Your task to perform on an android device: turn on priority inbox in the gmail app Image 0: 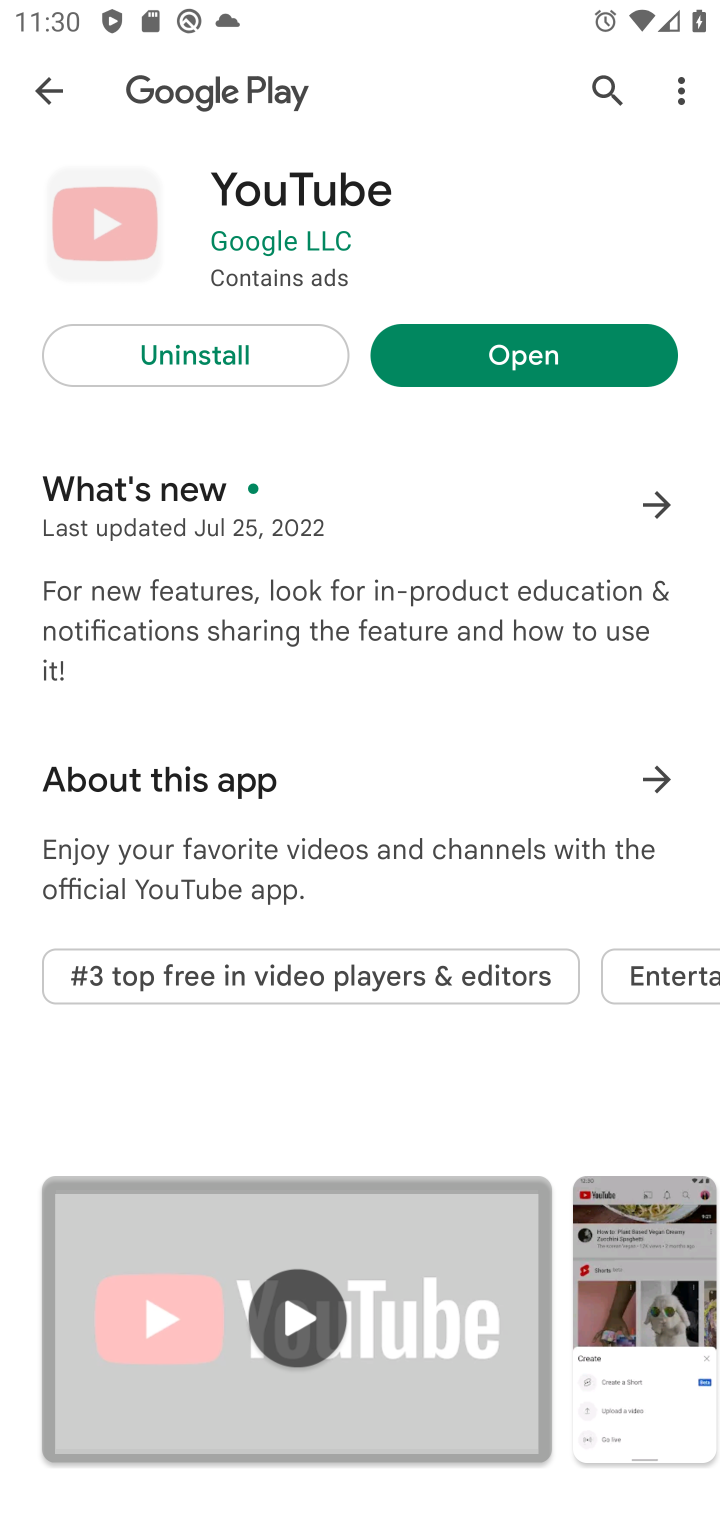
Step 0: press home button
Your task to perform on an android device: turn on priority inbox in the gmail app Image 1: 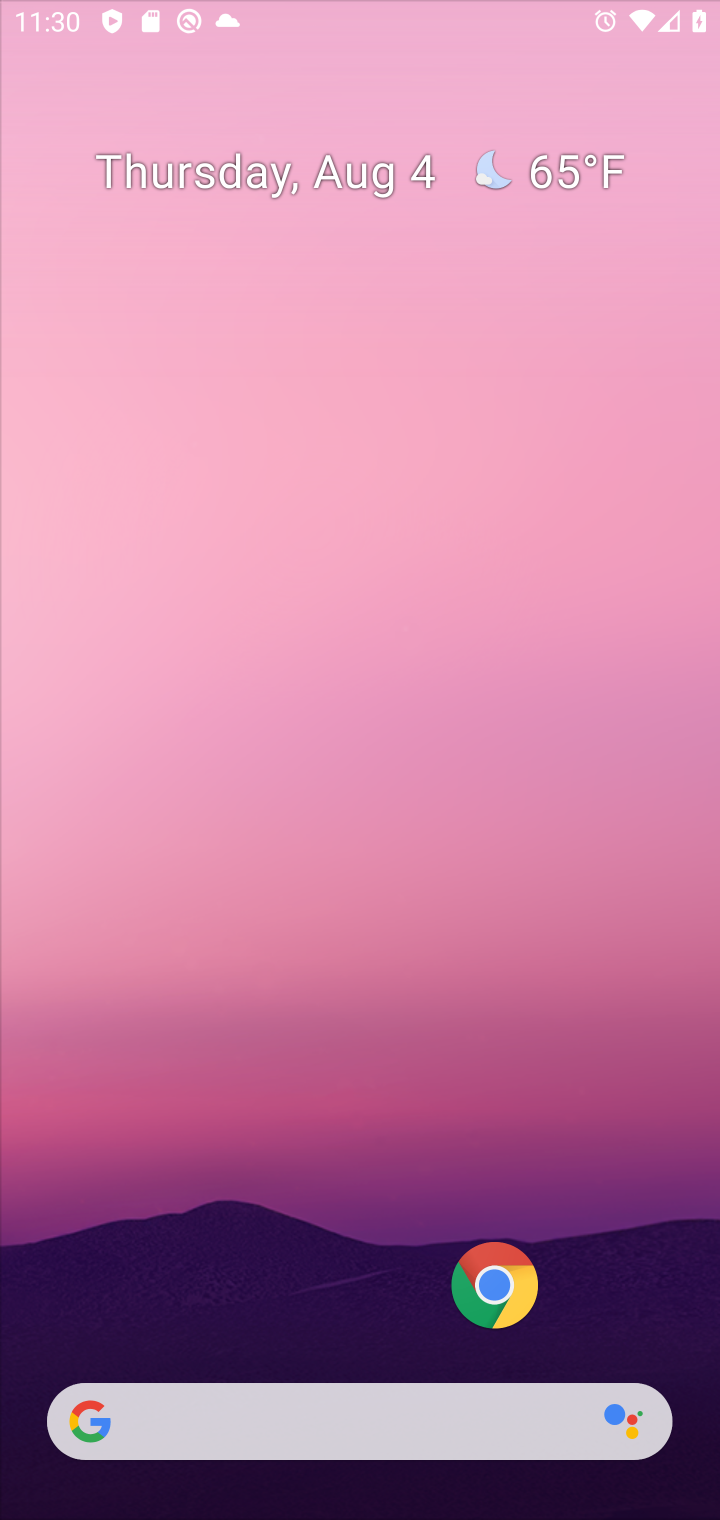
Step 1: drag from (323, 943) to (309, 151)
Your task to perform on an android device: turn on priority inbox in the gmail app Image 2: 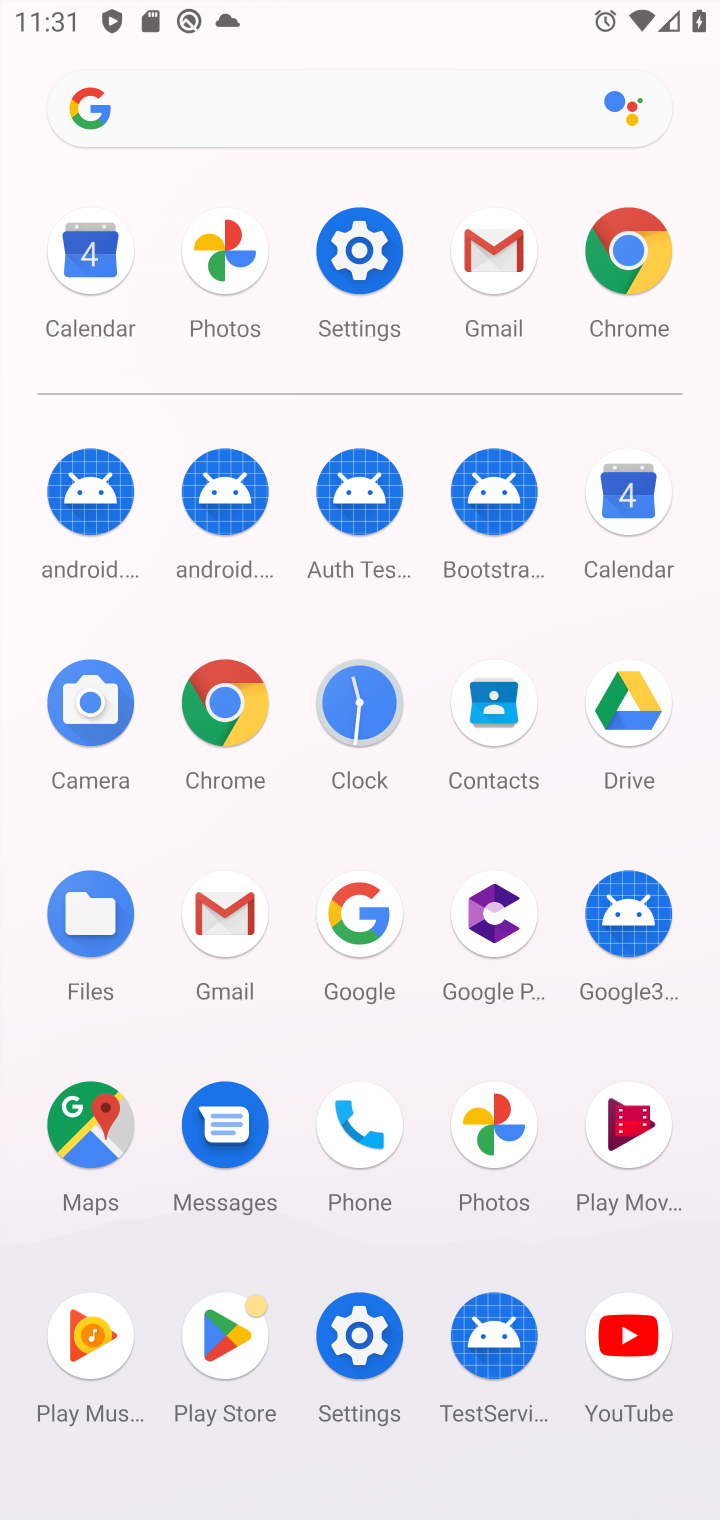
Step 2: click (229, 924)
Your task to perform on an android device: turn on priority inbox in the gmail app Image 3: 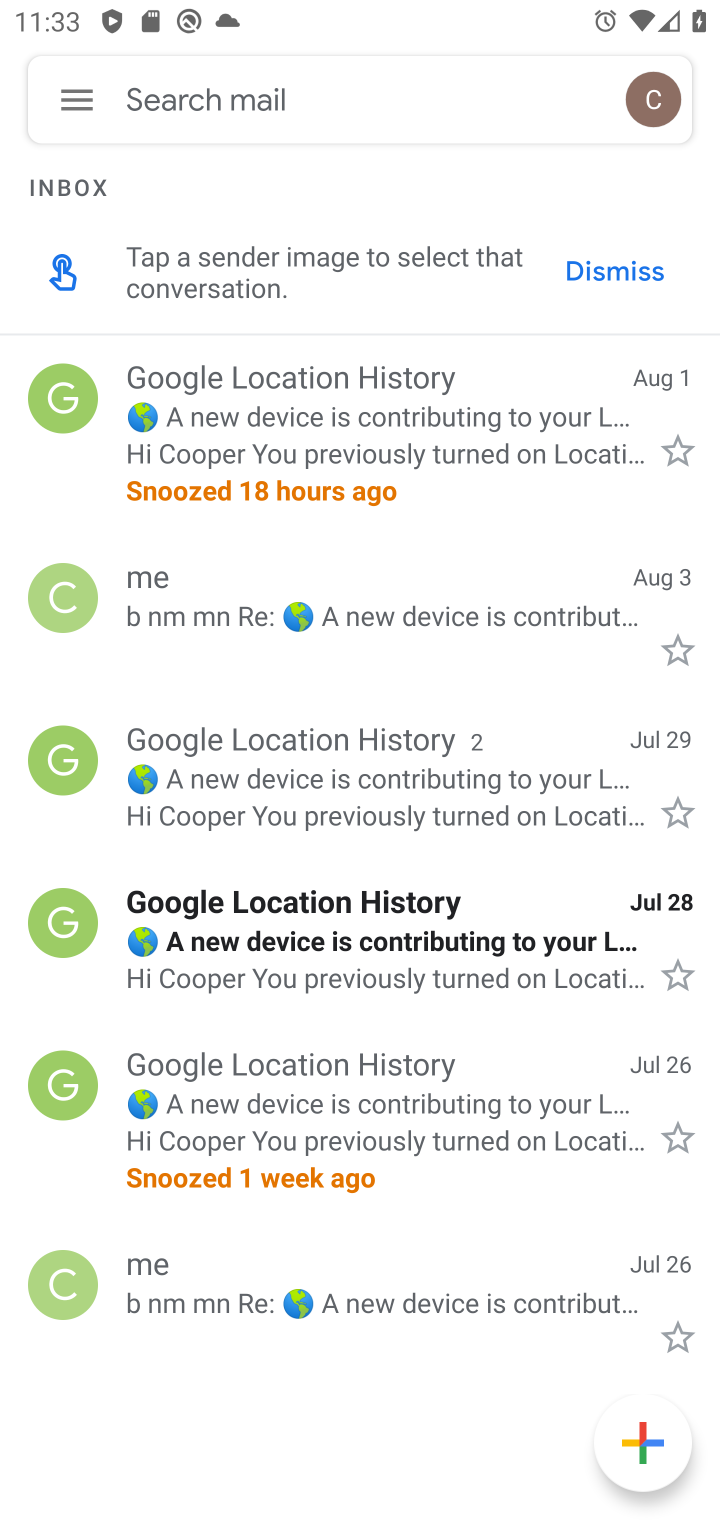
Step 3: click (67, 123)
Your task to perform on an android device: turn on priority inbox in the gmail app Image 4: 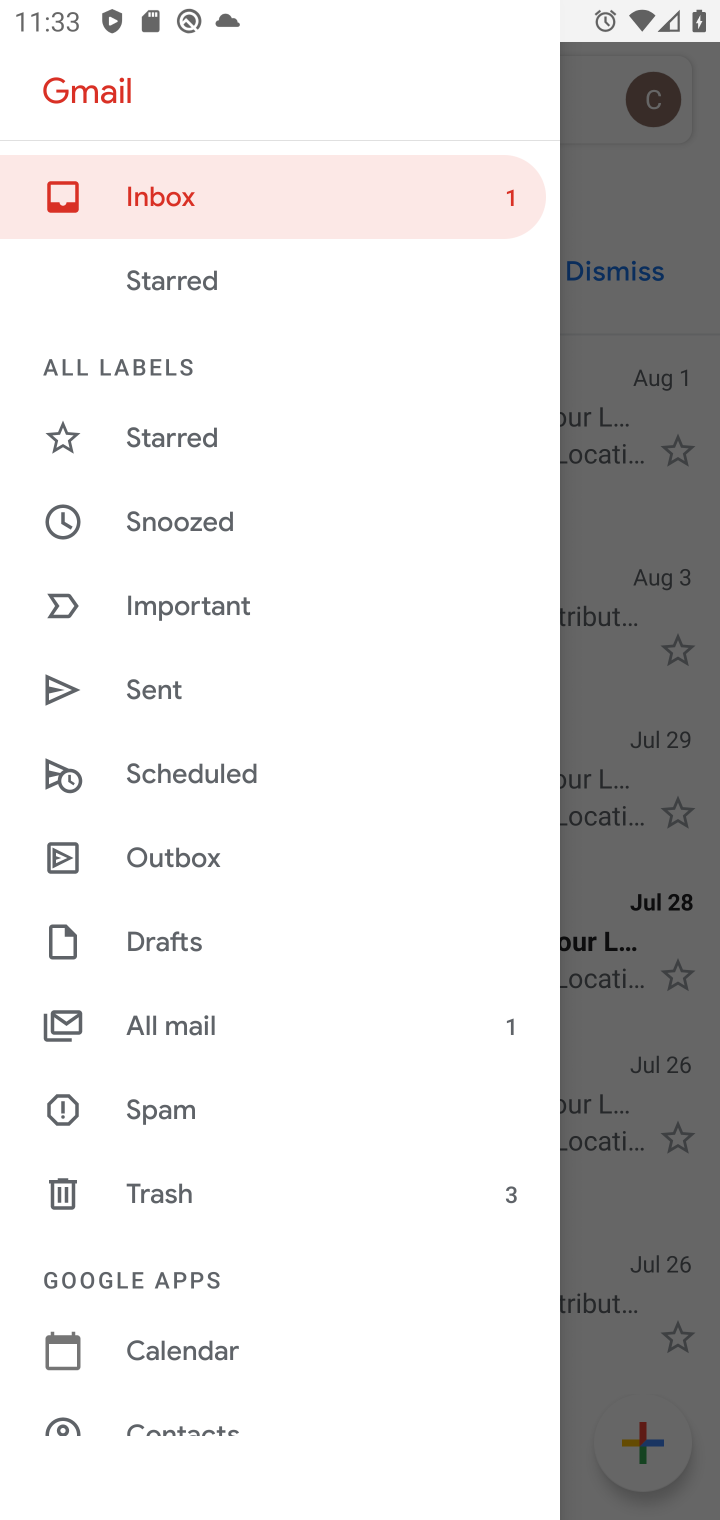
Step 4: drag from (195, 1253) to (181, 380)
Your task to perform on an android device: turn on priority inbox in the gmail app Image 5: 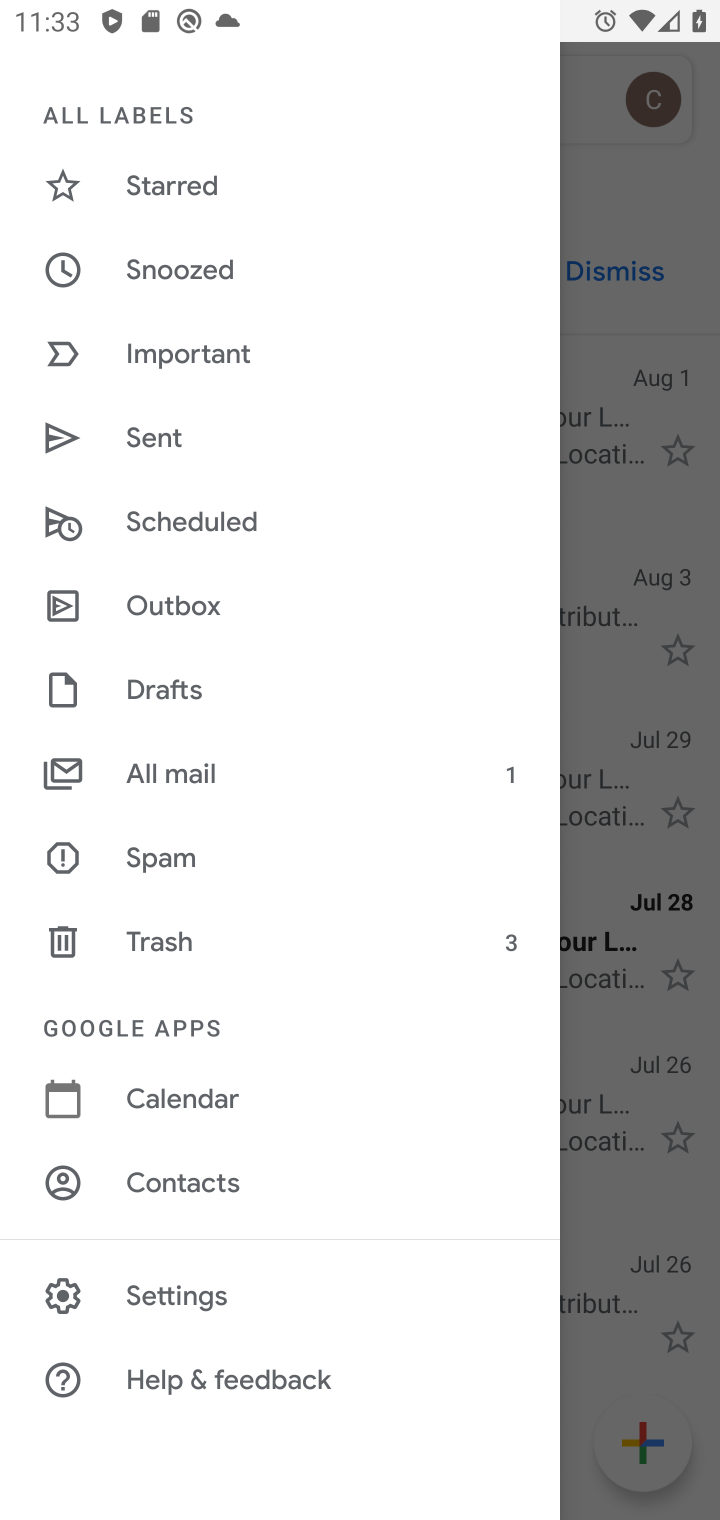
Step 5: click (136, 1294)
Your task to perform on an android device: turn on priority inbox in the gmail app Image 6: 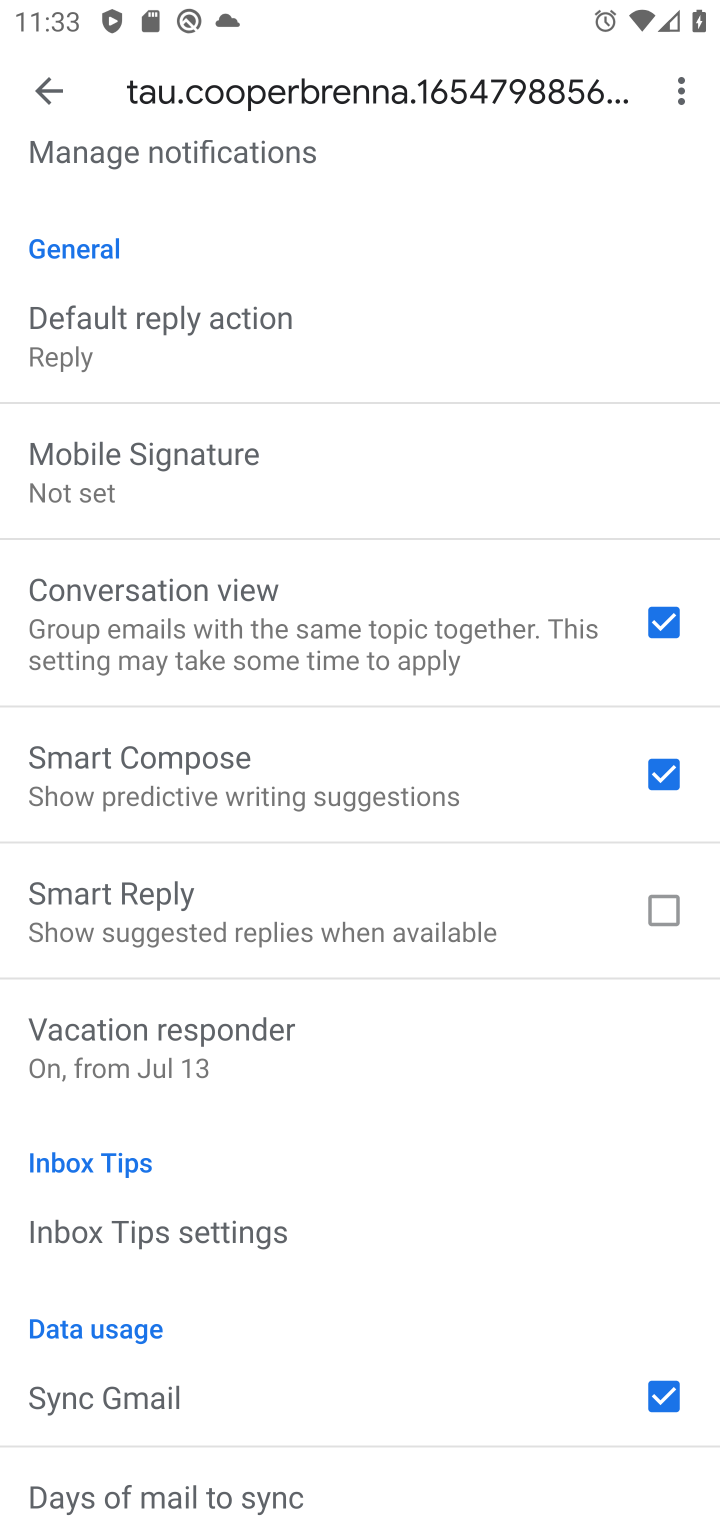
Step 6: drag from (387, 1321) to (231, 550)
Your task to perform on an android device: turn on priority inbox in the gmail app Image 7: 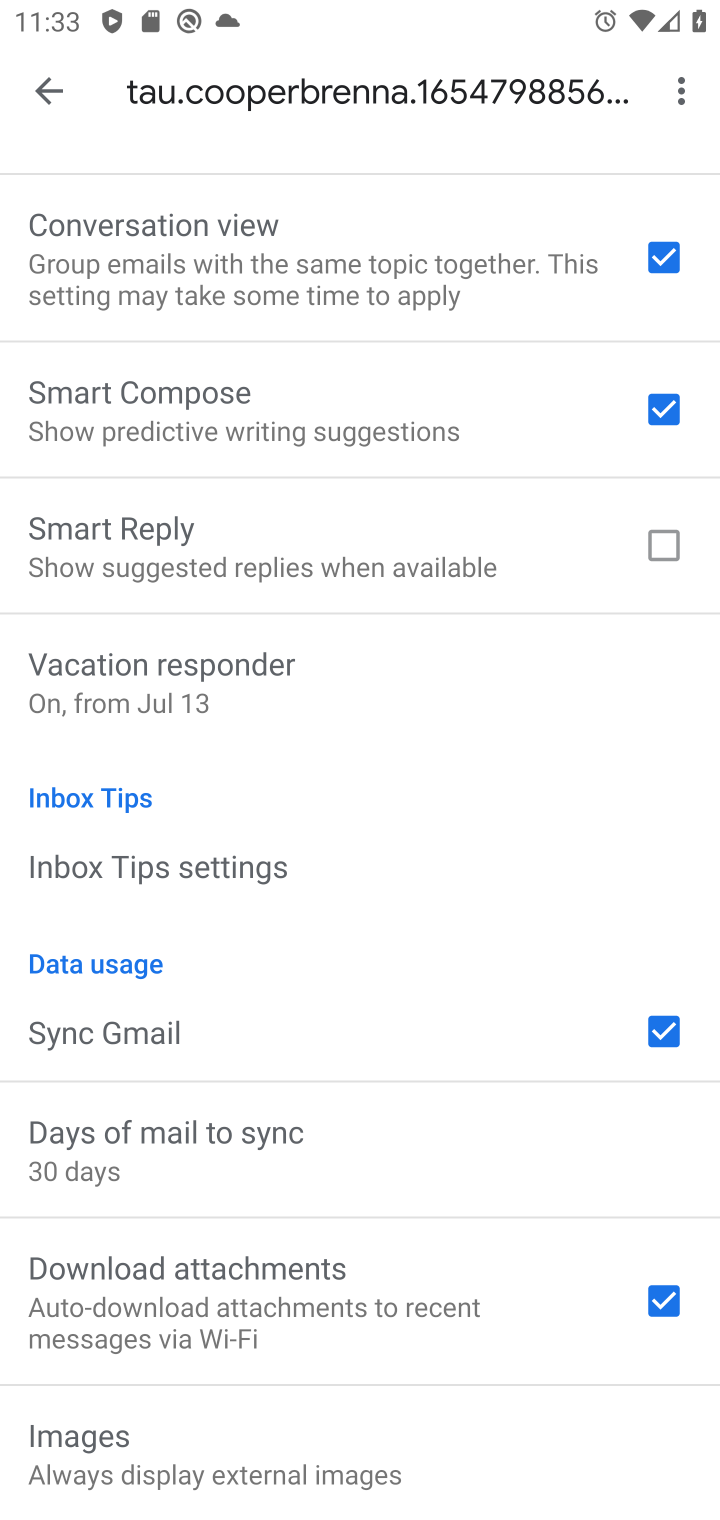
Step 7: drag from (231, 519) to (241, 1476)
Your task to perform on an android device: turn on priority inbox in the gmail app Image 8: 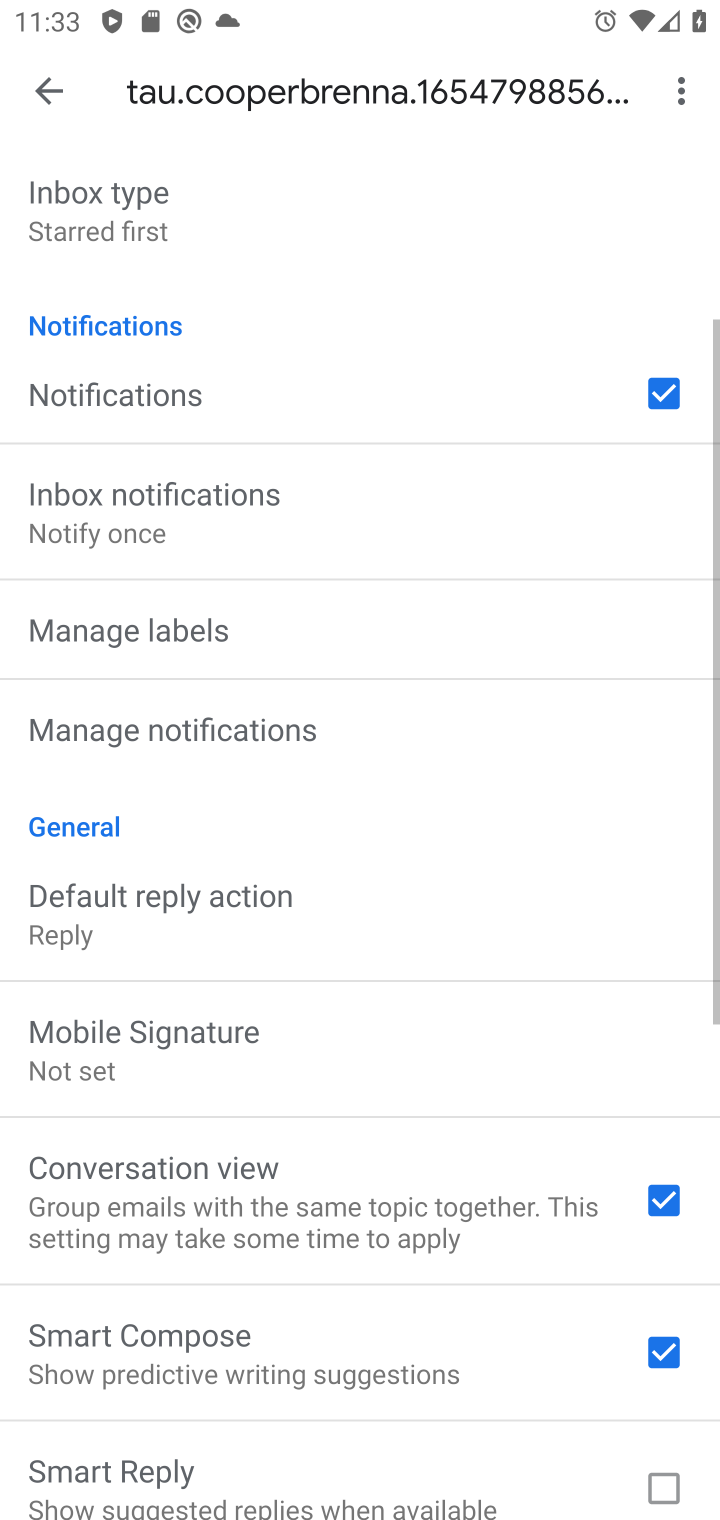
Step 8: drag from (166, 326) to (415, 1516)
Your task to perform on an android device: turn on priority inbox in the gmail app Image 9: 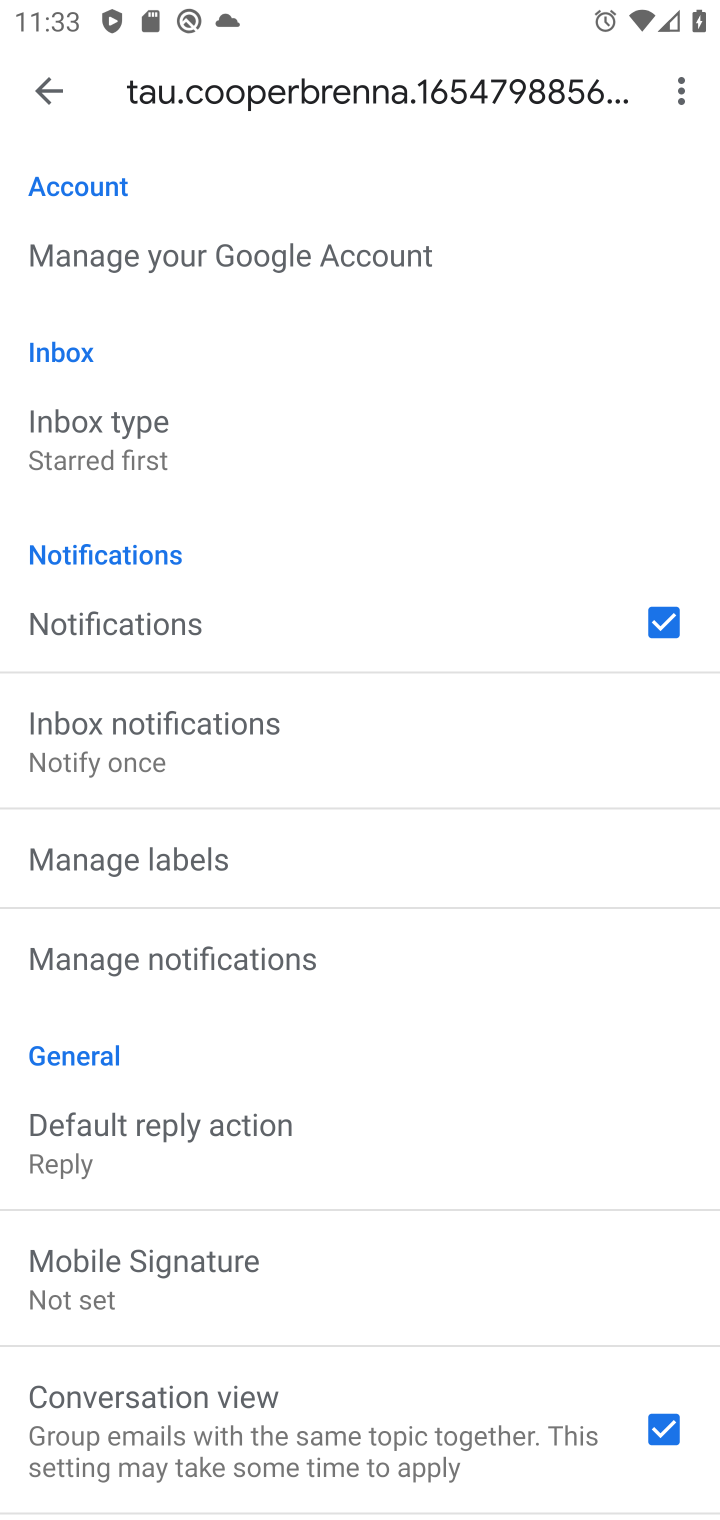
Step 9: click (141, 435)
Your task to perform on an android device: turn on priority inbox in the gmail app Image 10: 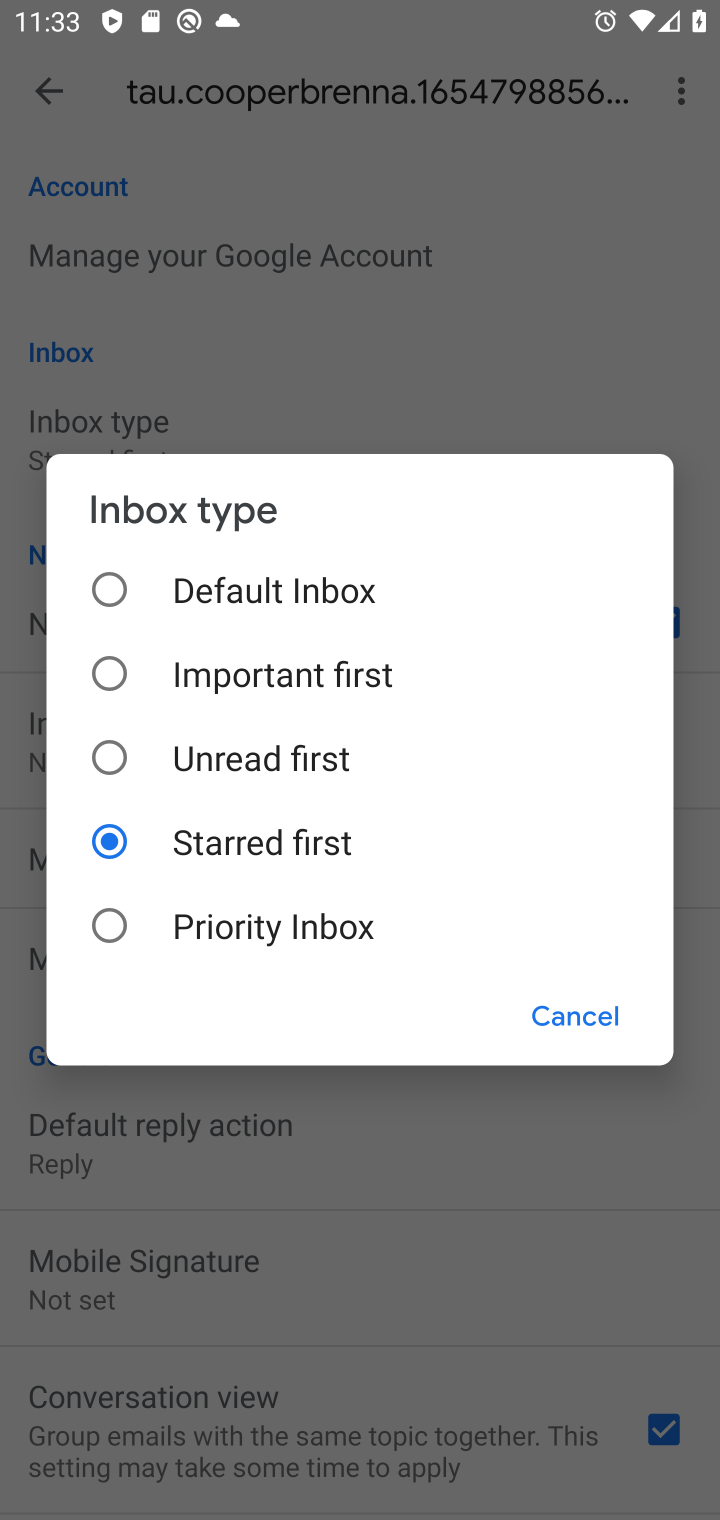
Step 10: click (157, 930)
Your task to perform on an android device: turn on priority inbox in the gmail app Image 11: 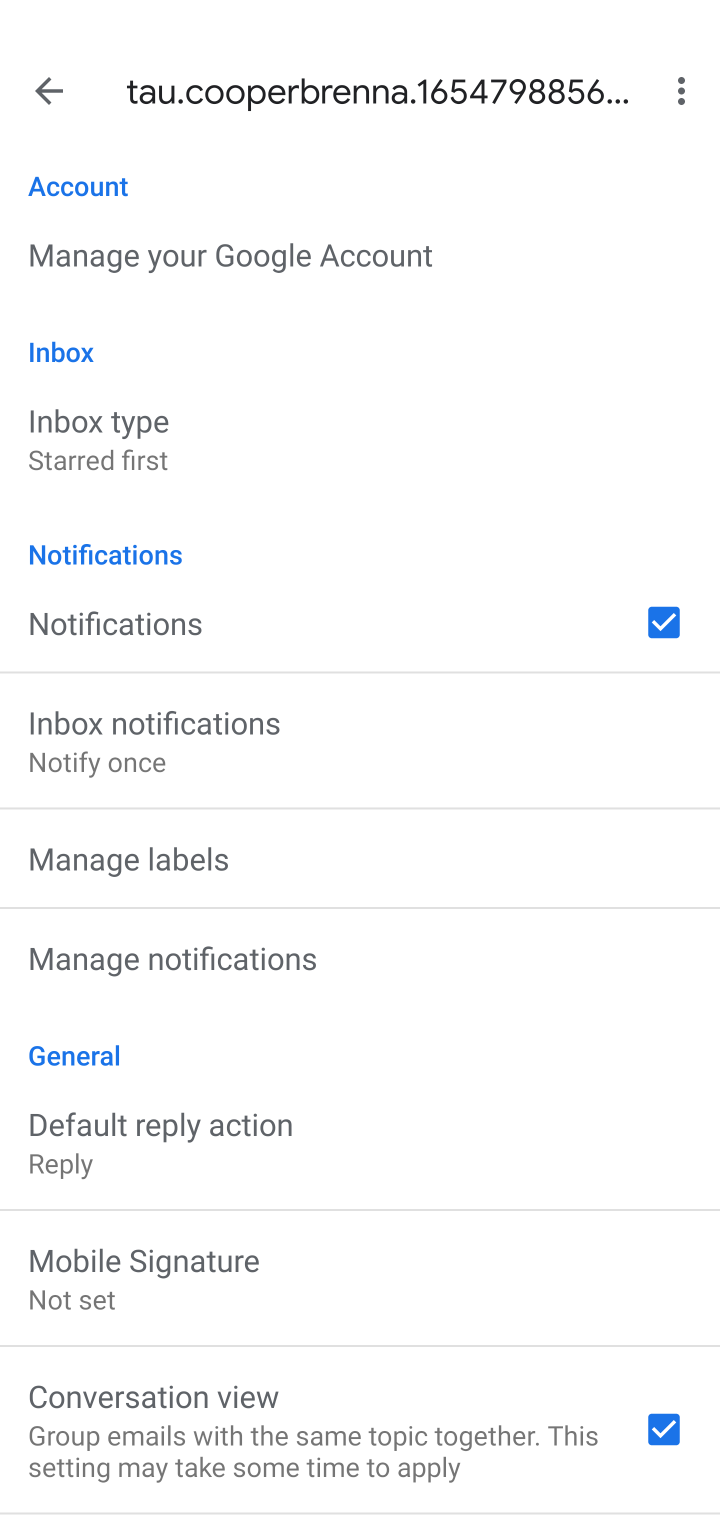
Step 11: task complete